Your task to perform on an android device: turn on airplane mode Image 0: 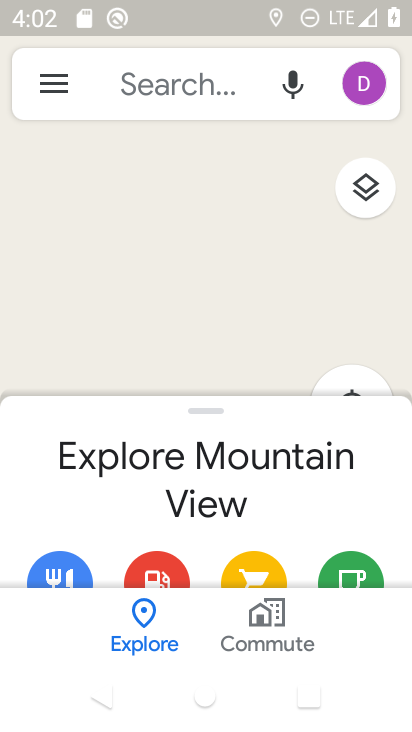
Step 0: press back button
Your task to perform on an android device: turn on airplane mode Image 1: 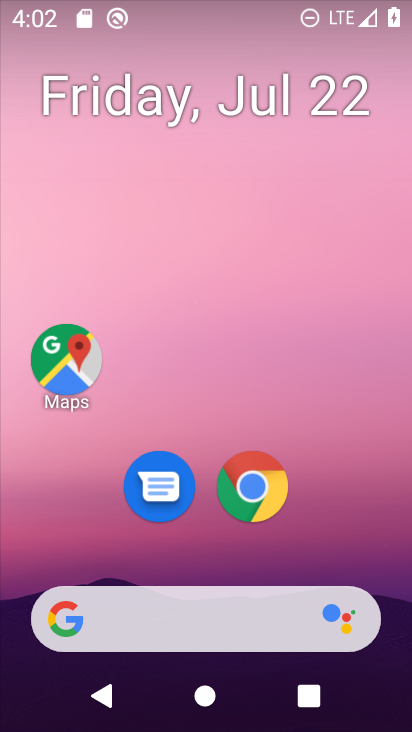
Step 1: drag from (361, 15) to (228, 581)
Your task to perform on an android device: turn on airplane mode Image 2: 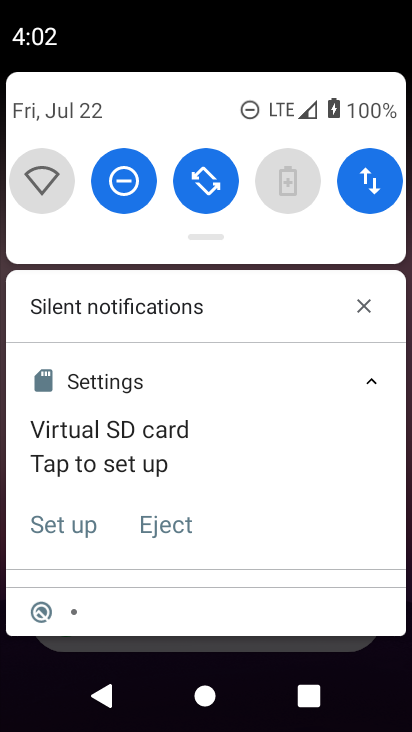
Step 2: drag from (201, 264) to (138, 644)
Your task to perform on an android device: turn on airplane mode Image 3: 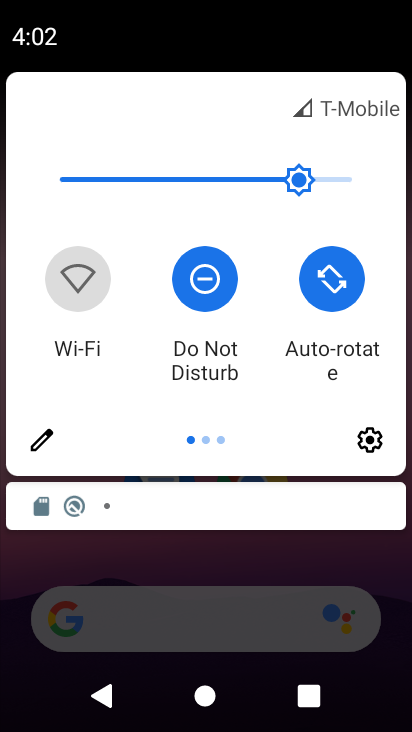
Step 3: drag from (377, 284) to (10, 318)
Your task to perform on an android device: turn on airplane mode Image 4: 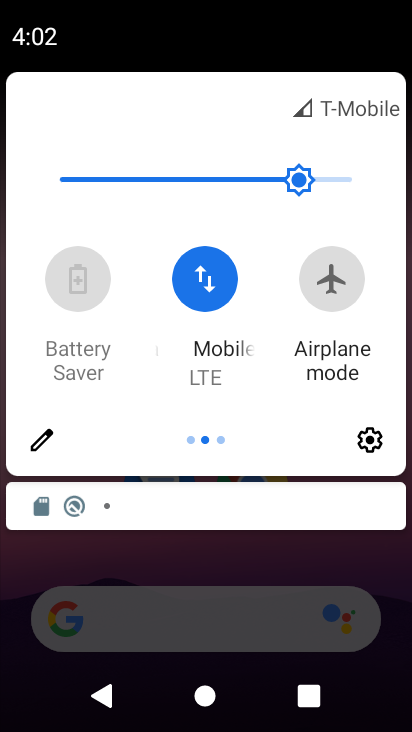
Step 4: click (330, 287)
Your task to perform on an android device: turn on airplane mode Image 5: 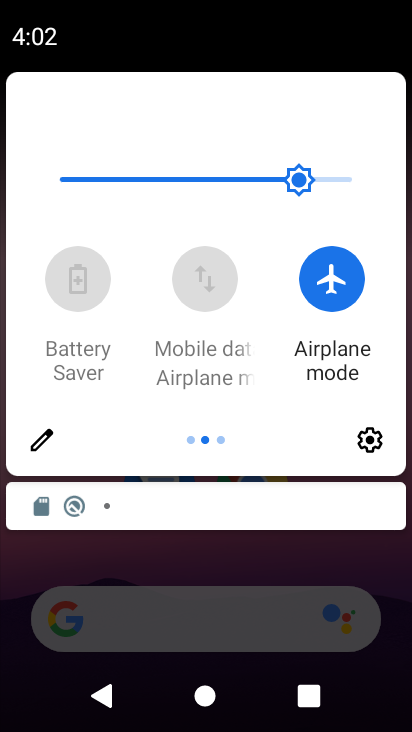
Step 5: task complete